Your task to perform on an android device: set default search engine in the chrome app Image 0: 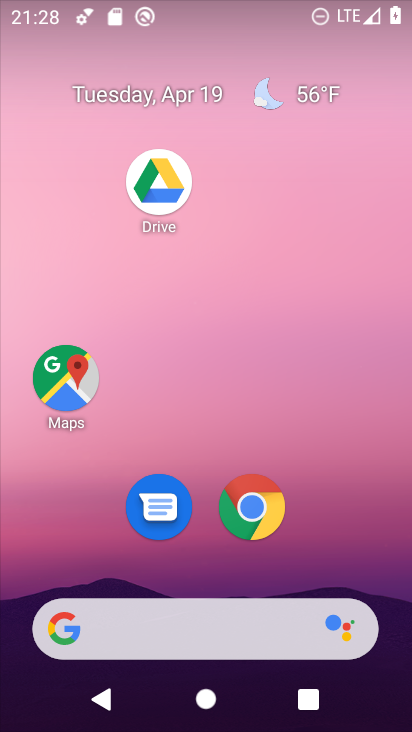
Step 0: click (258, 508)
Your task to perform on an android device: set default search engine in the chrome app Image 1: 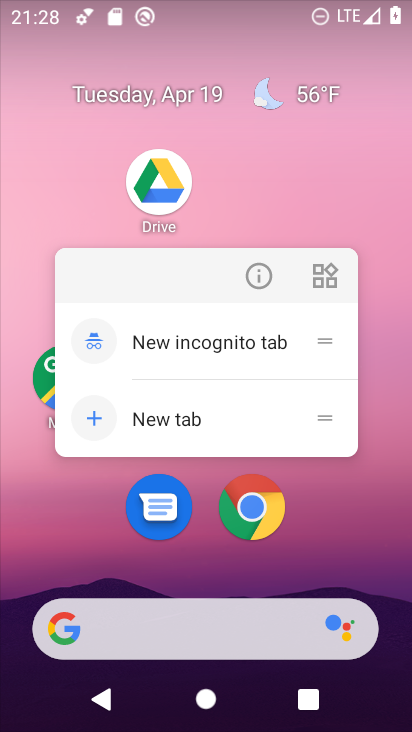
Step 1: click (258, 508)
Your task to perform on an android device: set default search engine in the chrome app Image 2: 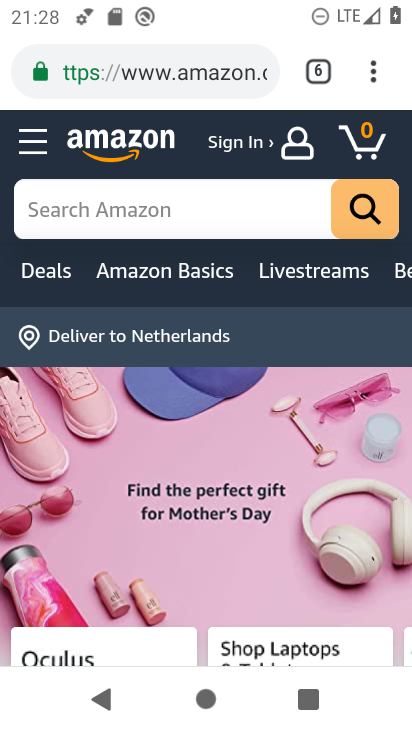
Step 2: drag from (373, 71) to (233, 518)
Your task to perform on an android device: set default search engine in the chrome app Image 3: 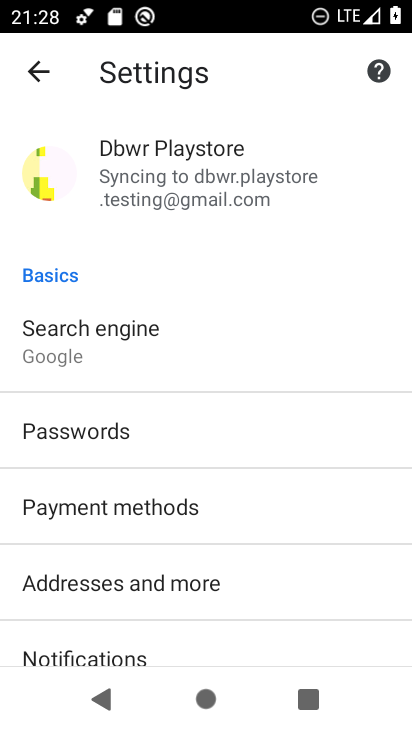
Step 3: click (124, 324)
Your task to perform on an android device: set default search engine in the chrome app Image 4: 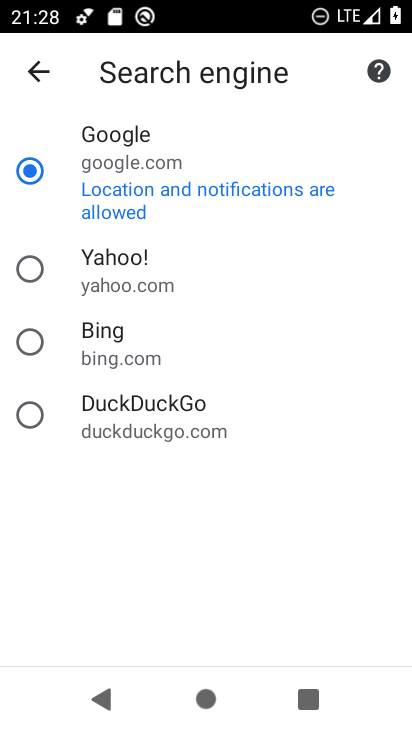
Step 4: task complete